Your task to perform on an android device: What is the recent news? Image 0: 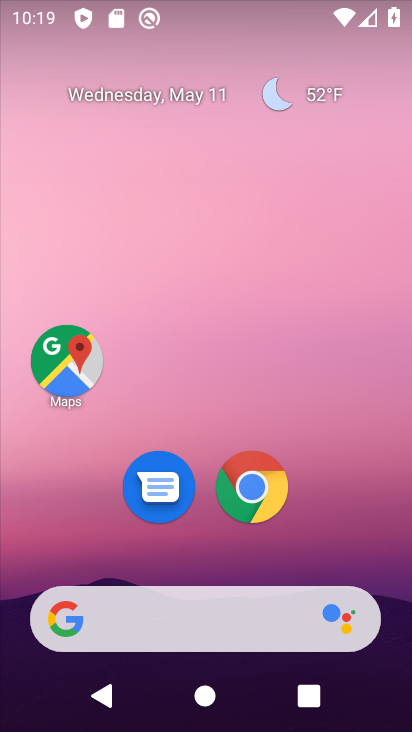
Step 0: drag from (355, 519) to (273, 11)
Your task to perform on an android device: What is the recent news? Image 1: 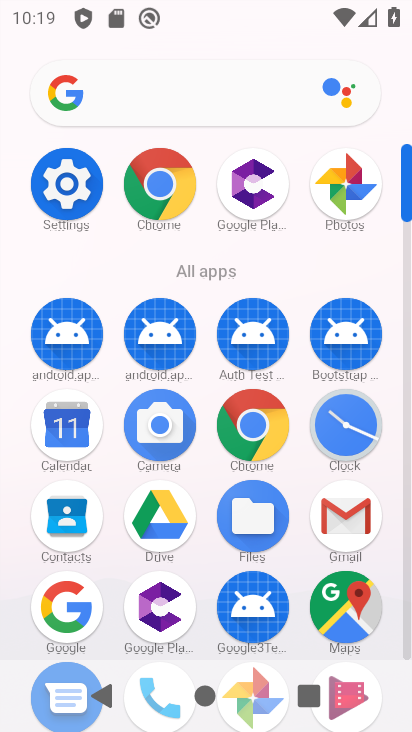
Step 1: drag from (3, 568) to (18, 229)
Your task to perform on an android device: What is the recent news? Image 2: 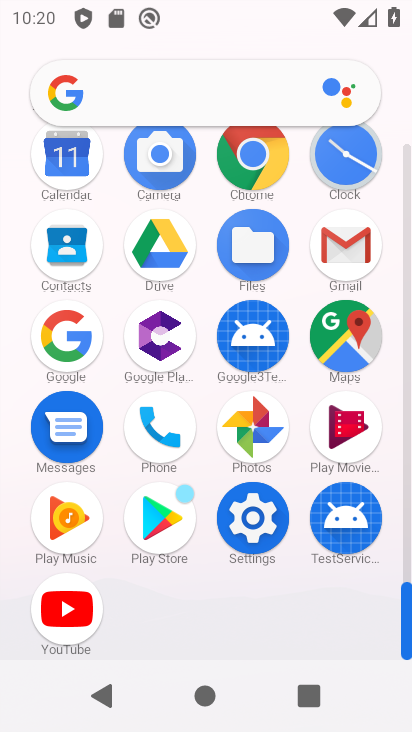
Step 2: click (250, 155)
Your task to perform on an android device: What is the recent news? Image 3: 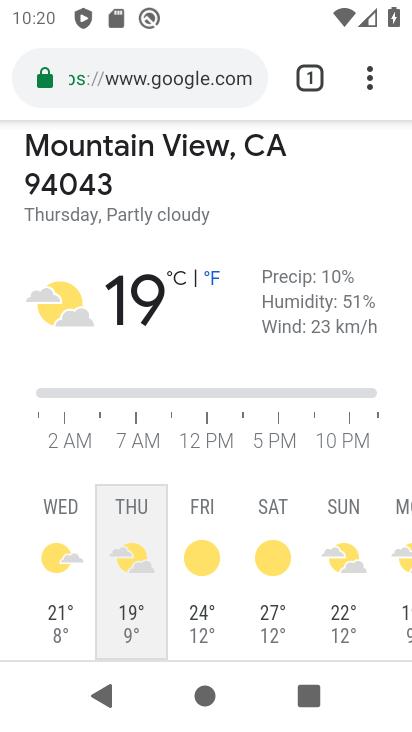
Step 3: drag from (364, 79) to (6, 66)
Your task to perform on an android device: What is the recent news? Image 4: 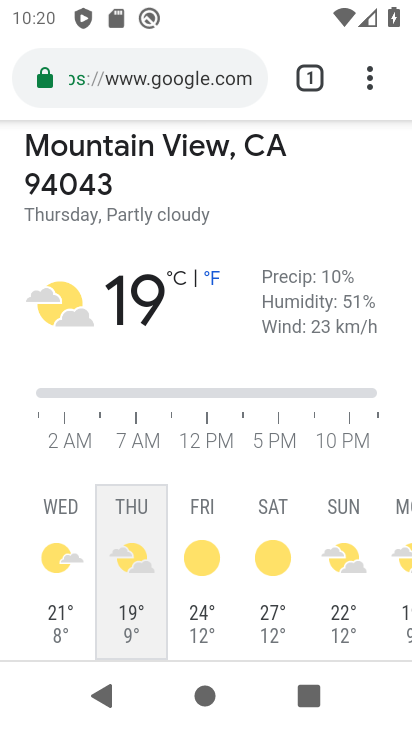
Step 4: click (128, 77)
Your task to perform on an android device: What is the recent news? Image 5: 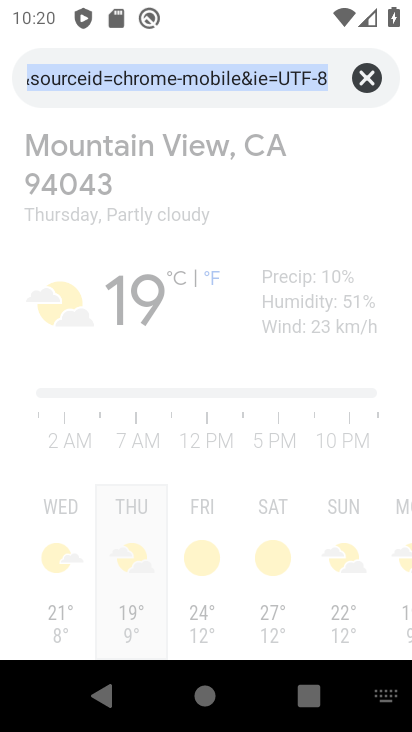
Step 5: click (371, 73)
Your task to perform on an android device: What is the recent news? Image 6: 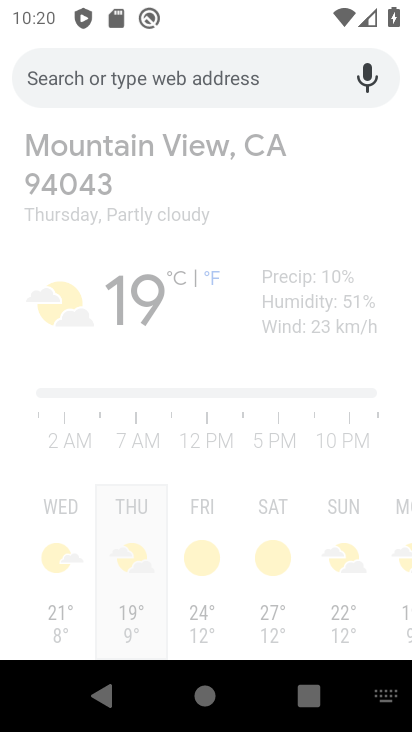
Step 6: type "What is the recent news?"
Your task to perform on an android device: What is the recent news? Image 7: 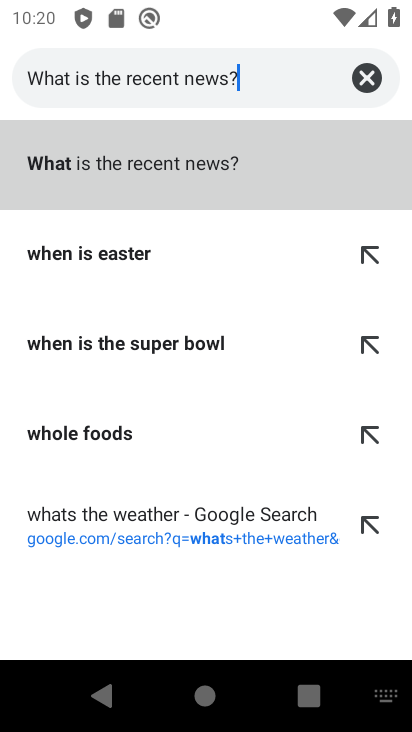
Step 7: type ""
Your task to perform on an android device: What is the recent news? Image 8: 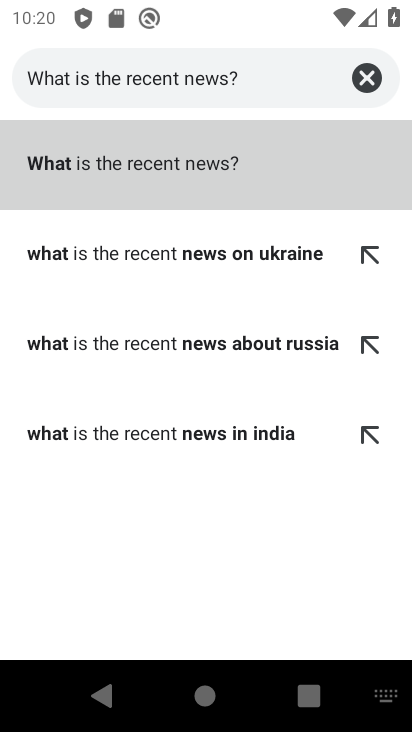
Step 8: click (148, 153)
Your task to perform on an android device: What is the recent news? Image 9: 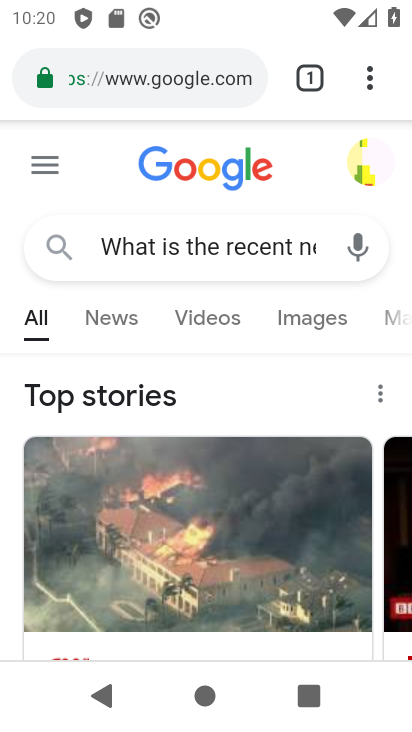
Step 9: task complete